Your task to perform on an android device: Open Yahoo.com Image 0: 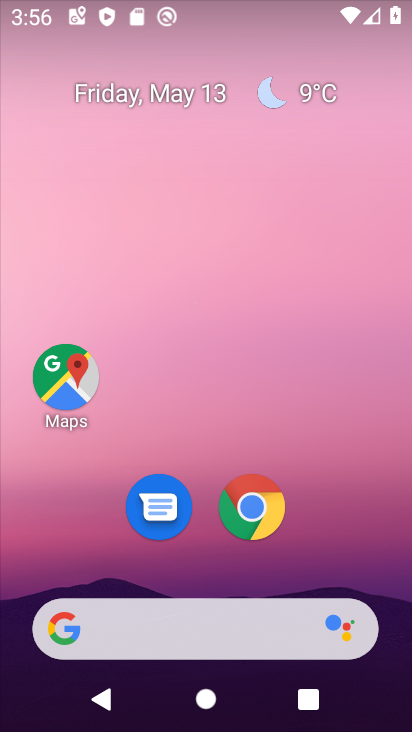
Step 0: drag from (315, 538) to (292, 3)
Your task to perform on an android device: Open Yahoo.com Image 1: 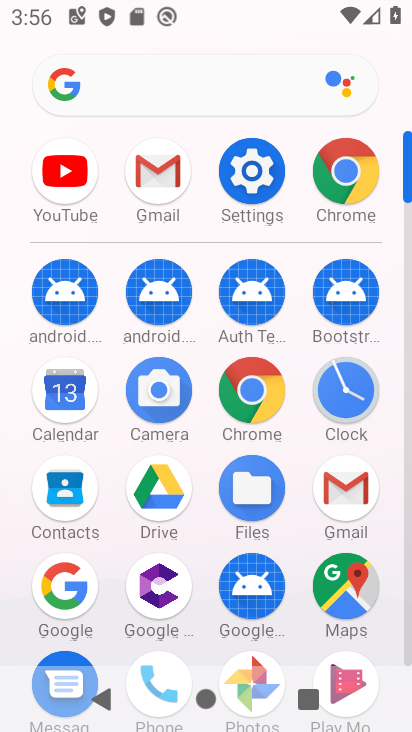
Step 1: click (350, 174)
Your task to perform on an android device: Open Yahoo.com Image 2: 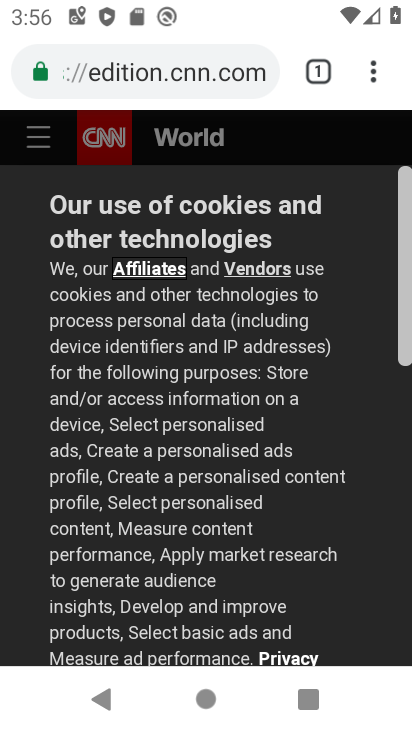
Step 2: click (192, 52)
Your task to perform on an android device: Open Yahoo.com Image 3: 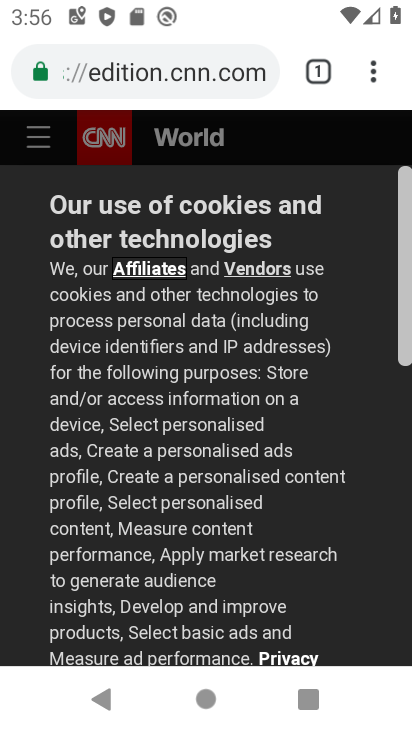
Step 3: click (181, 72)
Your task to perform on an android device: Open Yahoo.com Image 4: 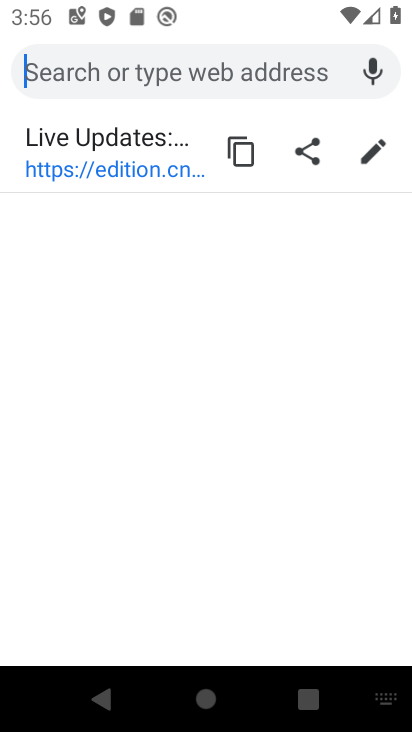
Step 4: type "yahoo"
Your task to perform on an android device: Open Yahoo.com Image 5: 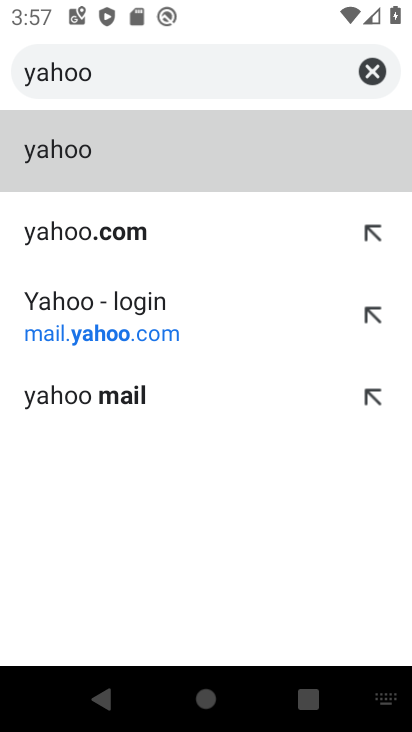
Step 5: click (106, 235)
Your task to perform on an android device: Open Yahoo.com Image 6: 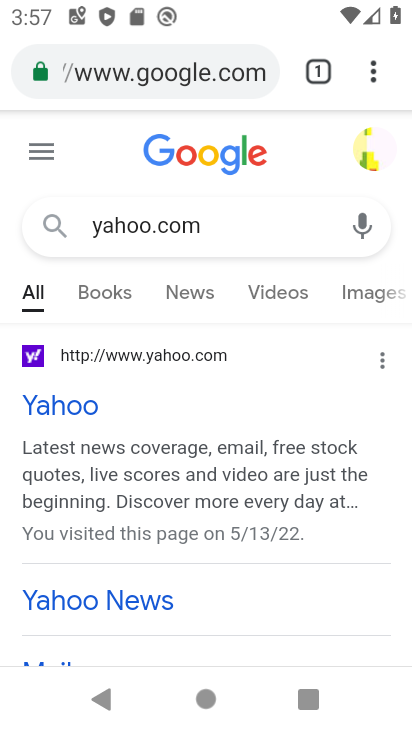
Step 6: click (86, 401)
Your task to perform on an android device: Open Yahoo.com Image 7: 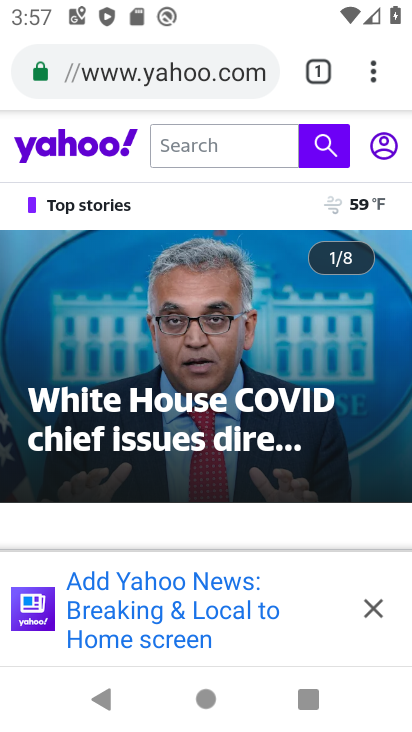
Step 7: task complete